Your task to perform on an android device: Open settings Image 0: 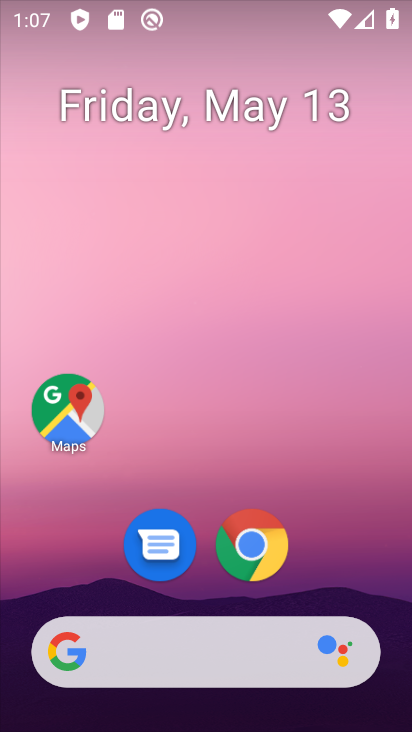
Step 0: drag from (385, 537) to (236, 5)
Your task to perform on an android device: Open settings Image 1: 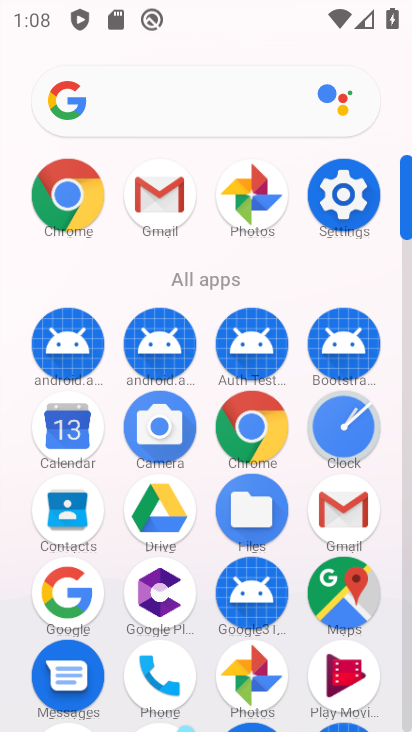
Step 1: click (339, 192)
Your task to perform on an android device: Open settings Image 2: 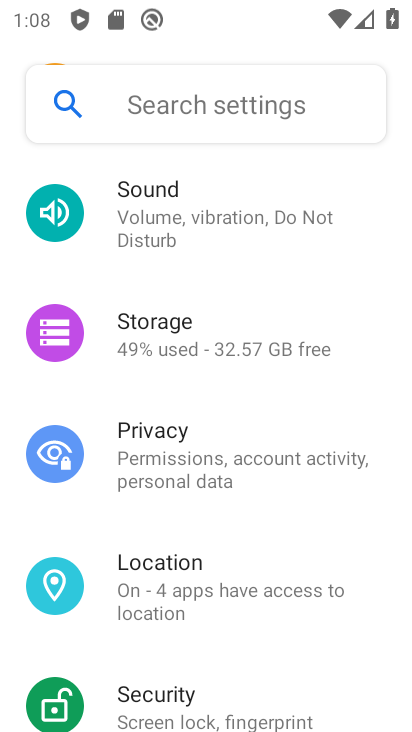
Step 2: task complete